Your task to perform on an android device: Open Chrome and go to settings Image 0: 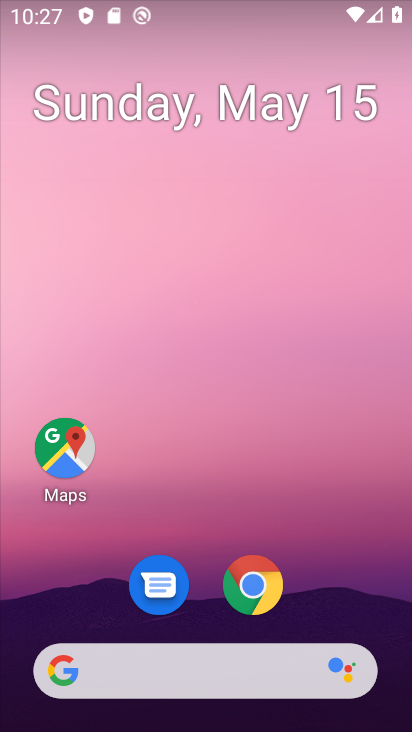
Step 0: click (259, 580)
Your task to perform on an android device: Open Chrome and go to settings Image 1: 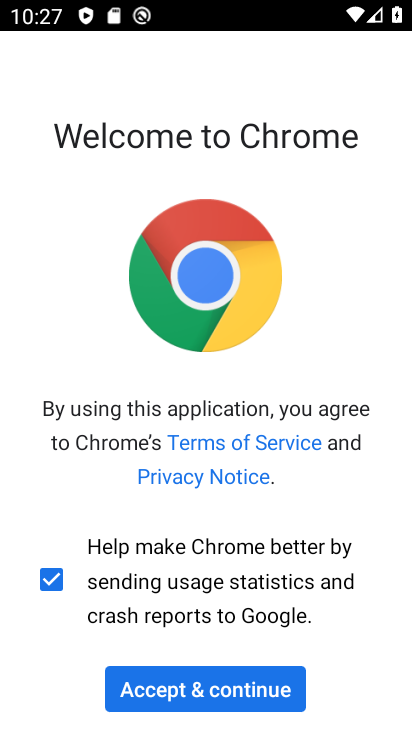
Step 1: click (234, 678)
Your task to perform on an android device: Open Chrome and go to settings Image 2: 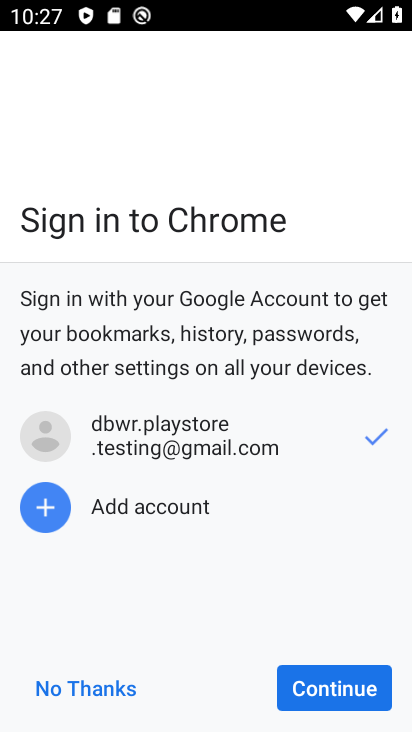
Step 2: click (324, 681)
Your task to perform on an android device: Open Chrome and go to settings Image 3: 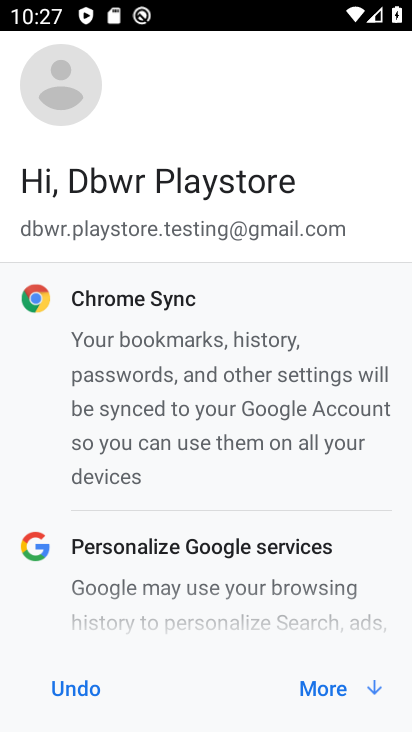
Step 3: click (324, 681)
Your task to perform on an android device: Open Chrome and go to settings Image 4: 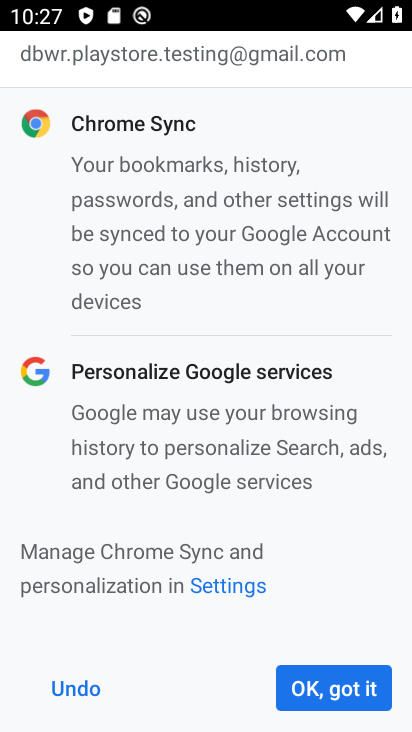
Step 4: click (324, 681)
Your task to perform on an android device: Open Chrome and go to settings Image 5: 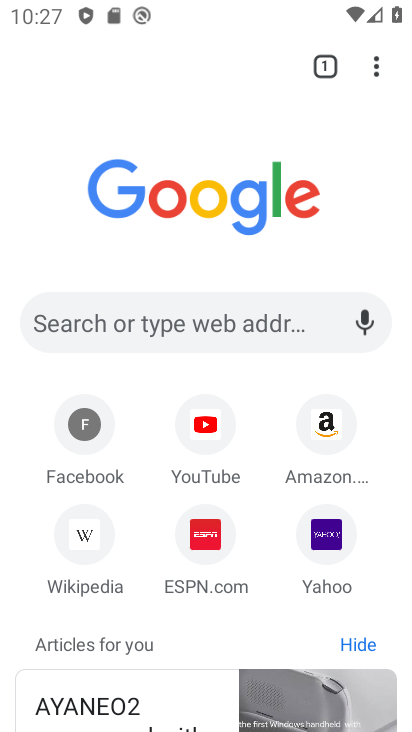
Step 5: click (378, 59)
Your task to perform on an android device: Open Chrome and go to settings Image 6: 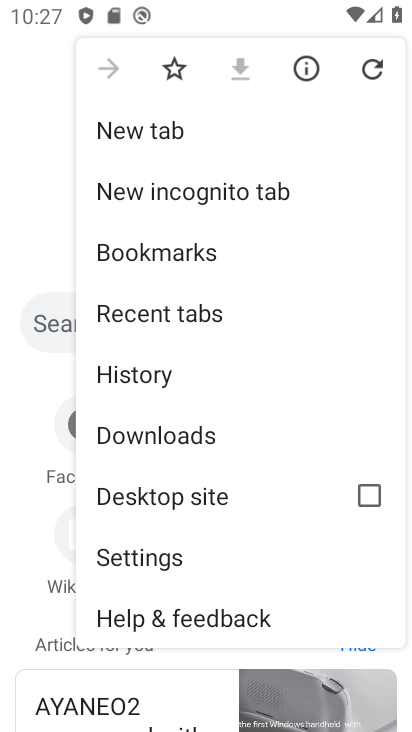
Step 6: click (180, 559)
Your task to perform on an android device: Open Chrome and go to settings Image 7: 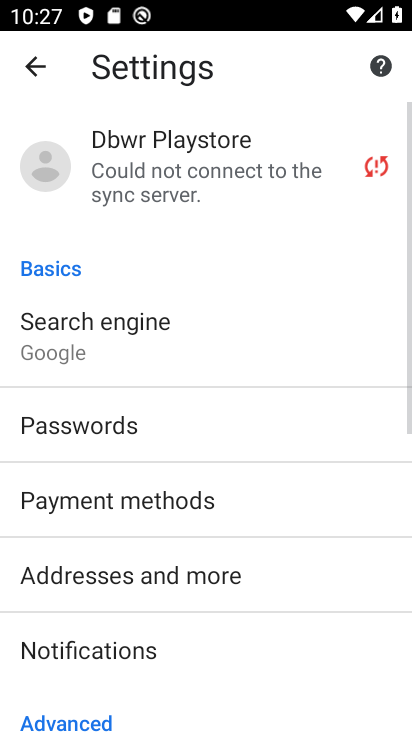
Step 7: task complete